Your task to perform on an android device: turn vacation reply on in the gmail app Image 0: 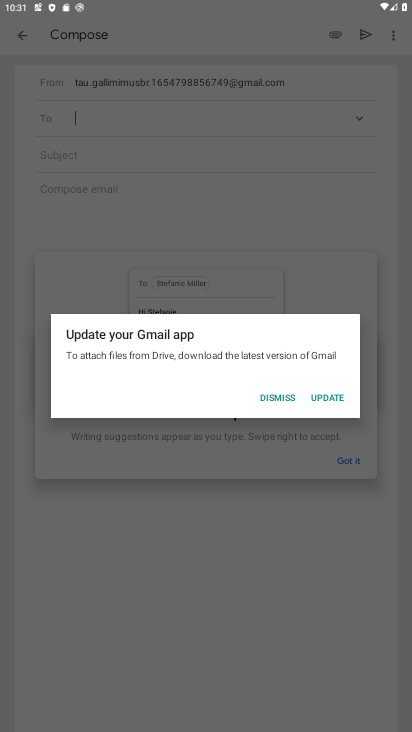
Step 0: press home button
Your task to perform on an android device: turn vacation reply on in the gmail app Image 1: 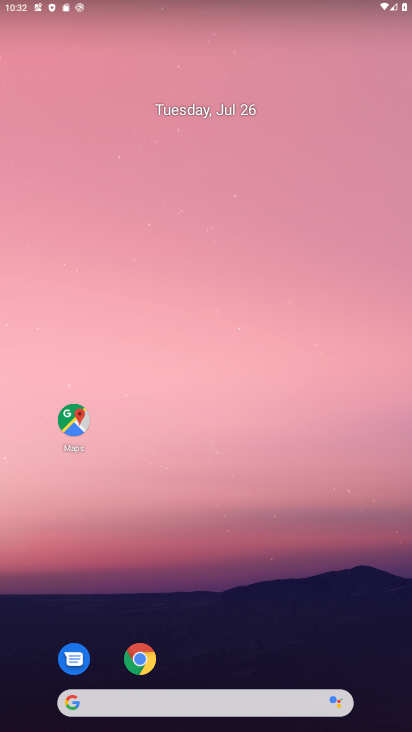
Step 1: drag from (262, 637) to (227, 65)
Your task to perform on an android device: turn vacation reply on in the gmail app Image 2: 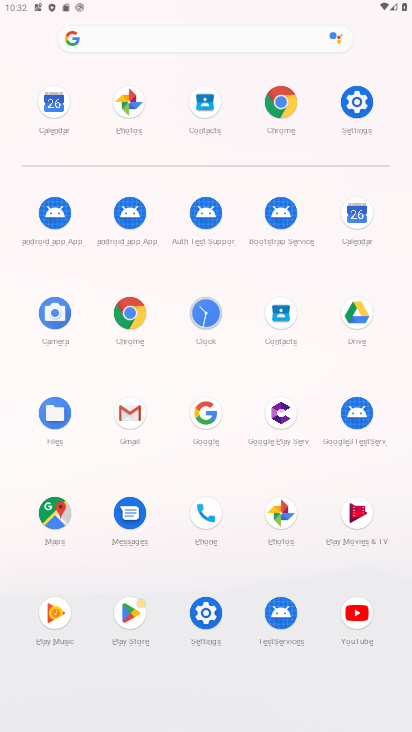
Step 2: click (126, 406)
Your task to perform on an android device: turn vacation reply on in the gmail app Image 3: 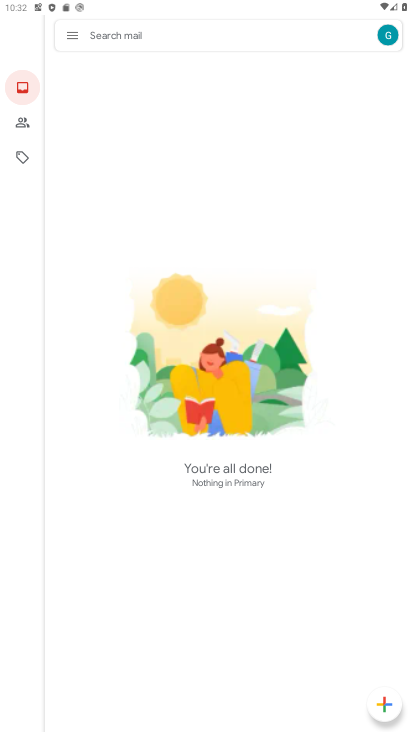
Step 3: click (80, 39)
Your task to perform on an android device: turn vacation reply on in the gmail app Image 4: 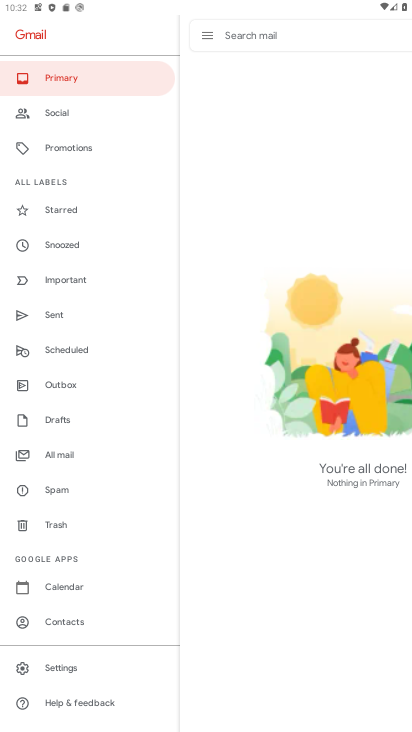
Step 4: click (66, 671)
Your task to perform on an android device: turn vacation reply on in the gmail app Image 5: 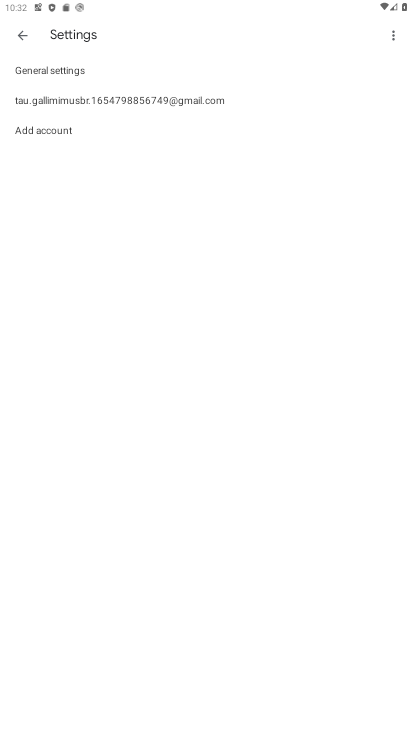
Step 5: click (85, 91)
Your task to perform on an android device: turn vacation reply on in the gmail app Image 6: 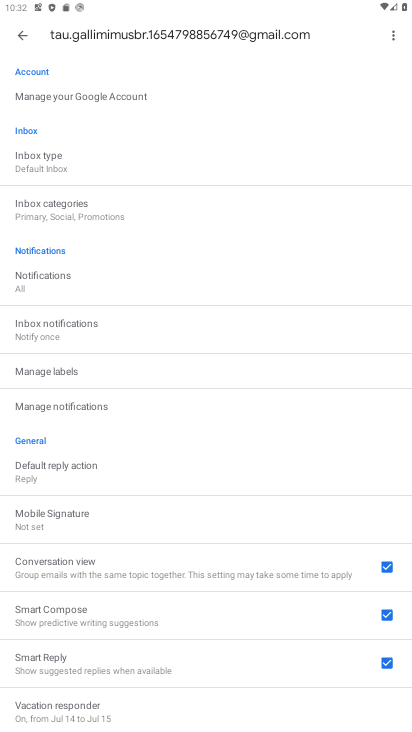
Step 6: drag from (136, 676) to (117, 462)
Your task to perform on an android device: turn vacation reply on in the gmail app Image 7: 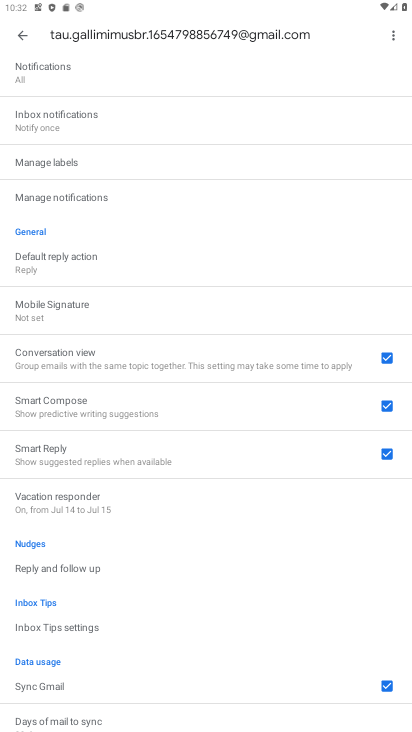
Step 7: click (60, 504)
Your task to perform on an android device: turn vacation reply on in the gmail app Image 8: 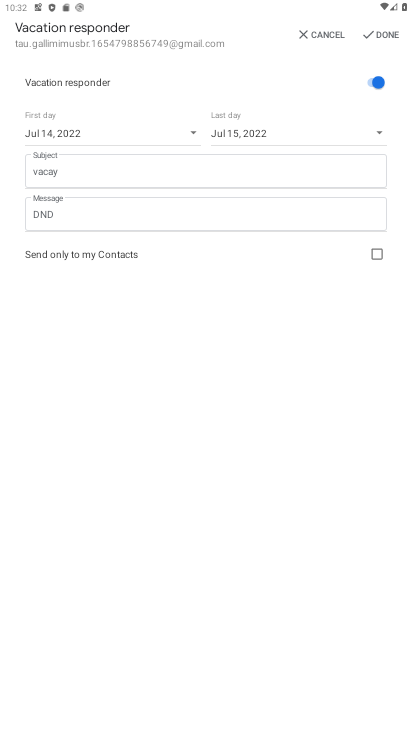
Step 8: click (388, 36)
Your task to perform on an android device: turn vacation reply on in the gmail app Image 9: 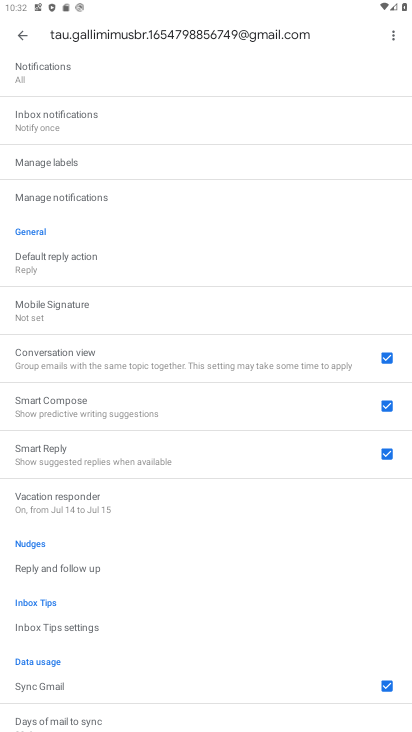
Step 9: task complete